Your task to perform on an android device: Show me popular videos on Youtube Image 0: 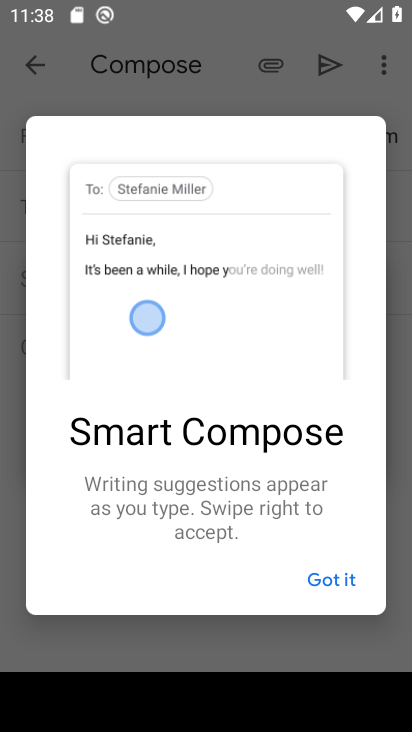
Step 0: press home button
Your task to perform on an android device: Show me popular videos on Youtube Image 1: 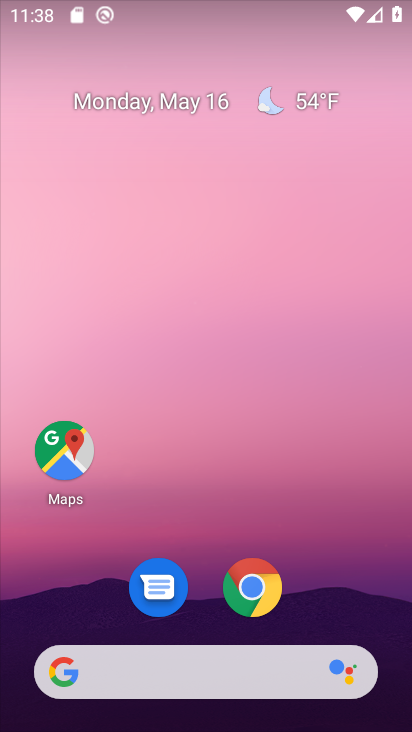
Step 1: drag from (217, 612) to (274, 117)
Your task to perform on an android device: Show me popular videos on Youtube Image 2: 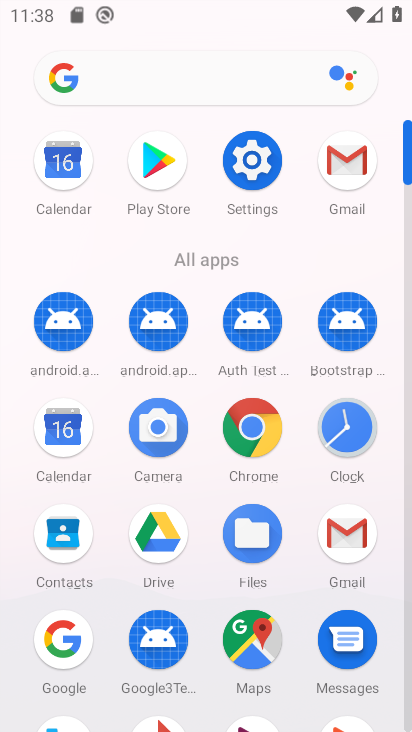
Step 2: drag from (240, 427) to (362, 24)
Your task to perform on an android device: Show me popular videos on Youtube Image 3: 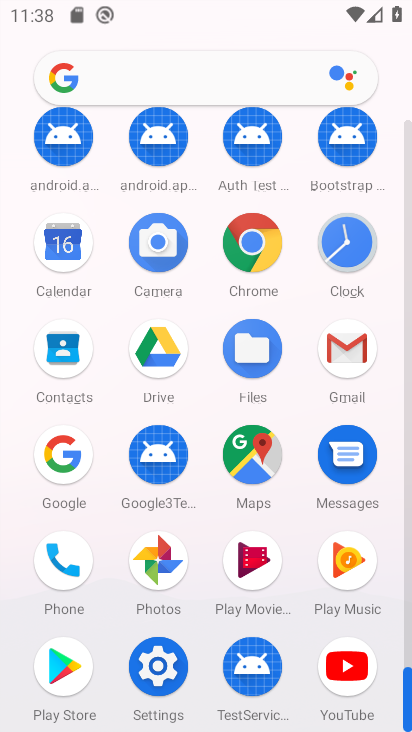
Step 3: click (345, 672)
Your task to perform on an android device: Show me popular videos on Youtube Image 4: 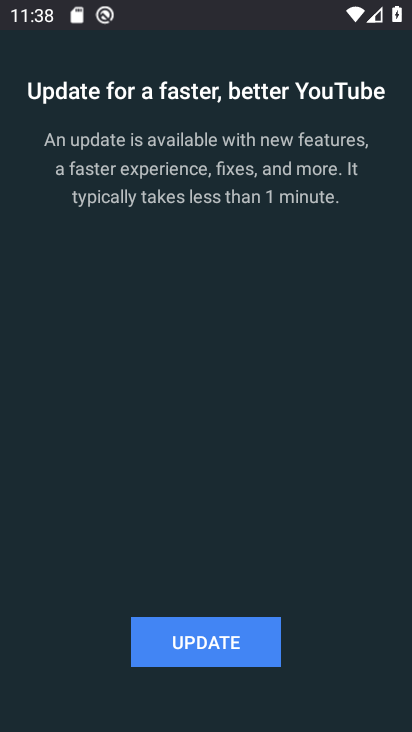
Step 4: click (214, 647)
Your task to perform on an android device: Show me popular videos on Youtube Image 5: 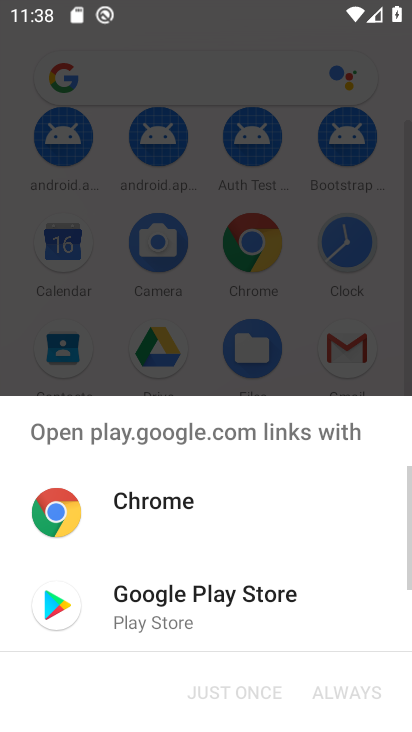
Step 5: click (167, 608)
Your task to perform on an android device: Show me popular videos on Youtube Image 6: 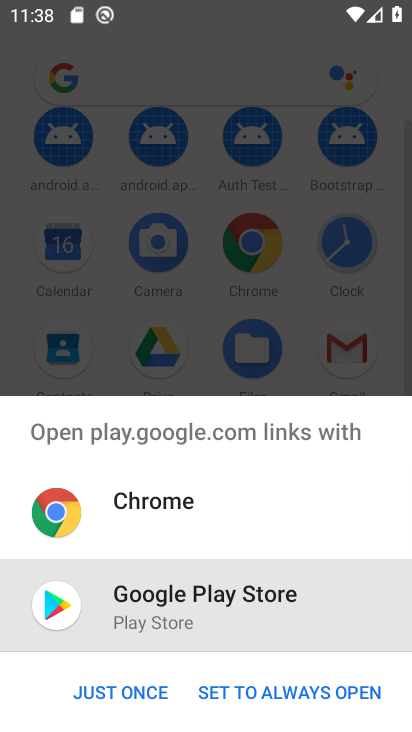
Step 6: click (124, 687)
Your task to perform on an android device: Show me popular videos on Youtube Image 7: 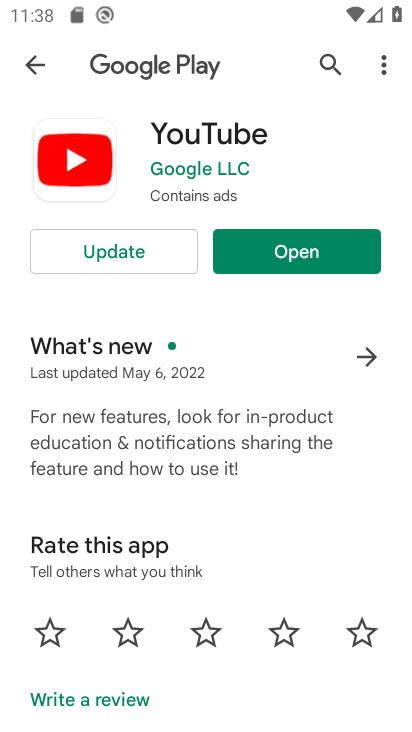
Step 7: click (124, 255)
Your task to perform on an android device: Show me popular videos on Youtube Image 8: 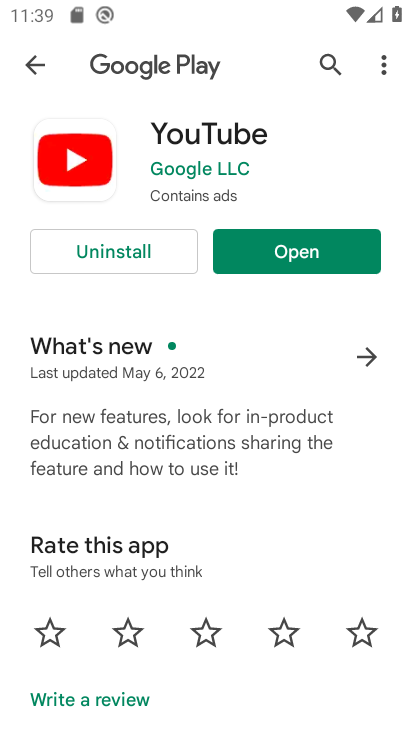
Step 8: click (271, 264)
Your task to perform on an android device: Show me popular videos on Youtube Image 9: 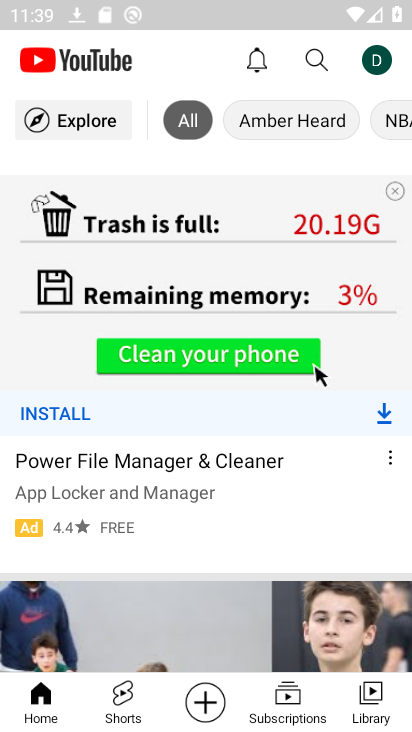
Step 9: click (57, 111)
Your task to perform on an android device: Show me popular videos on Youtube Image 10: 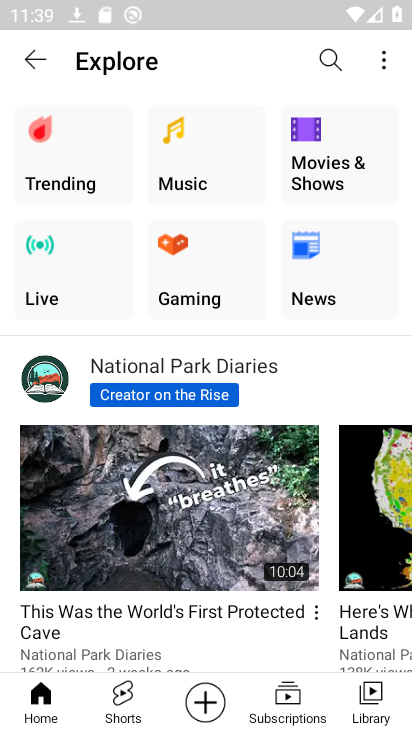
Step 10: click (77, 168)
Your task to perform on an android device: Show me popular videos on Youtube Image 11: 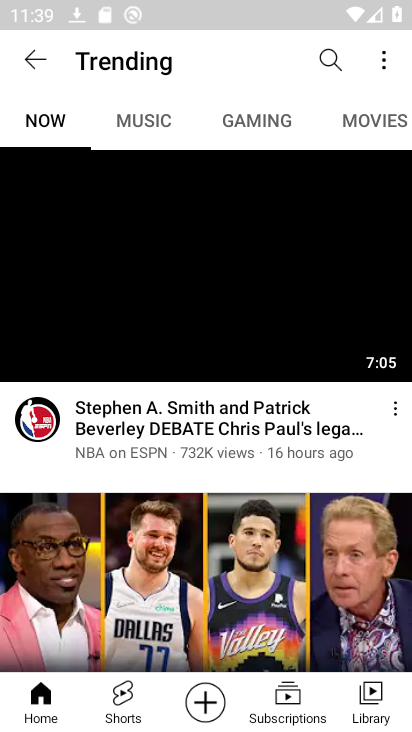
Step 11: task complete